Your task to perform on an android device: find which apps use the phone's location Image 0: 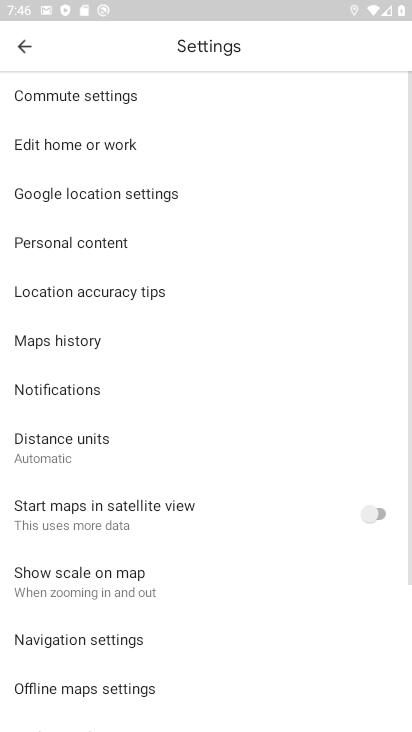
Step 0: press home button
Your task to perform on an android device: find which apps use the phone's location Image 1: 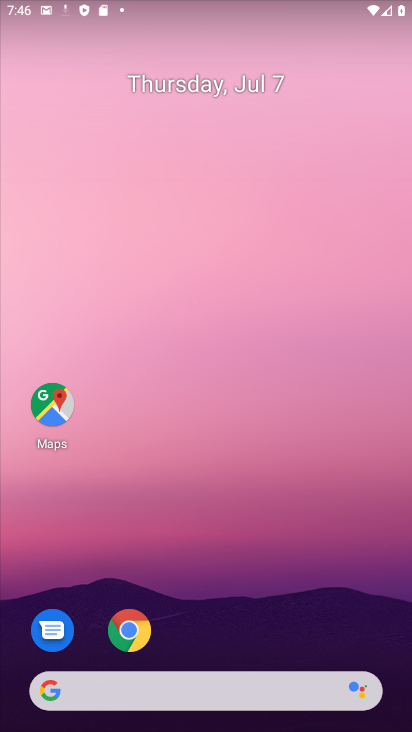
Step 1: drag from (318, 584) to (280, 5)
Your task to perform on an android device: find which apps use the phone's location Image 2: 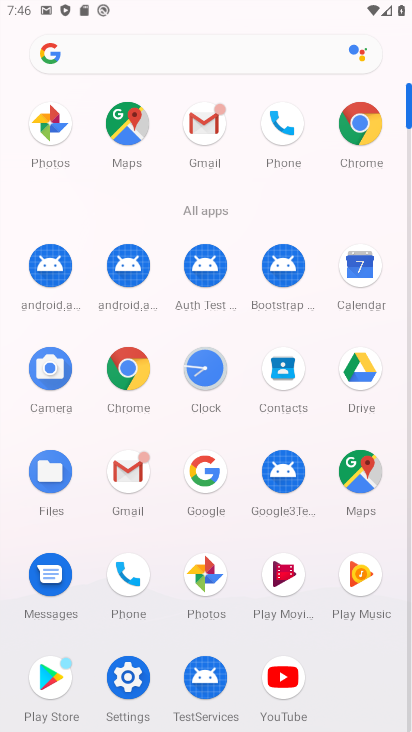
Step 2: click (122, 670)
Your task to perform on an android device: find which apps use the phone's location Image 3: 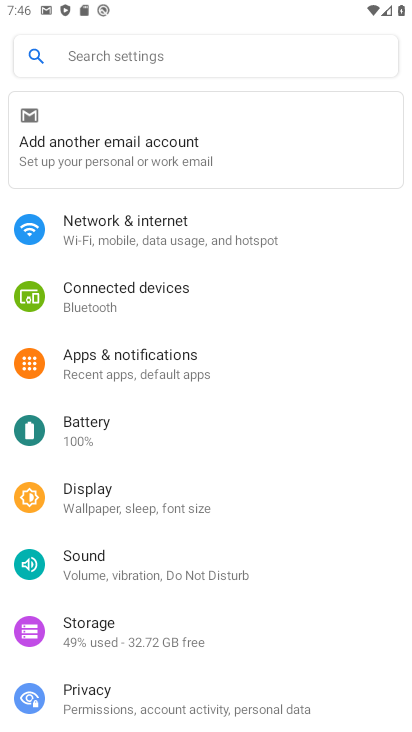
Step 3: drag from (122, 670) to (122, 501)
Your task to perform on an android device: find which apps use the phone's location Image 4: 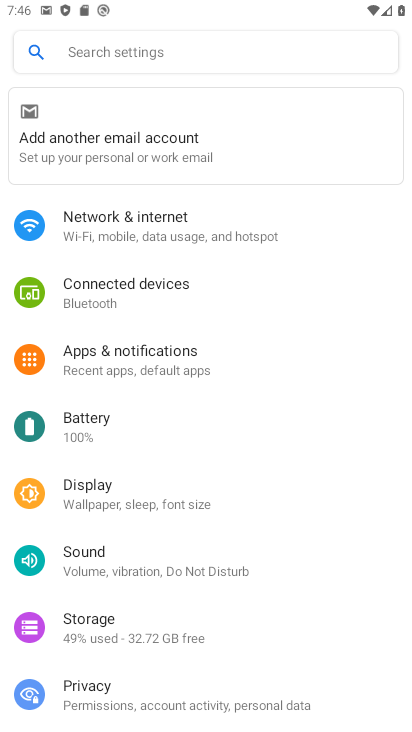
Step 4: drag from (121, 697) to (125, 359)
Your task to perform on an android device: find which apps use the phone's location Image 5: 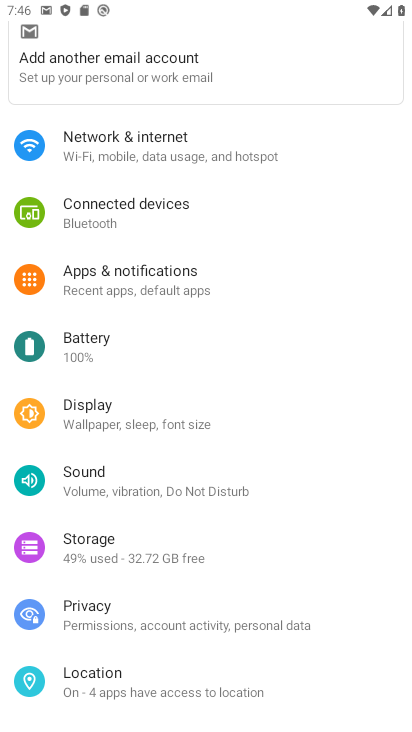
Step 5: click (113, 678)
Your task to perform on an android device: find which apps use the phone's location Image 6: 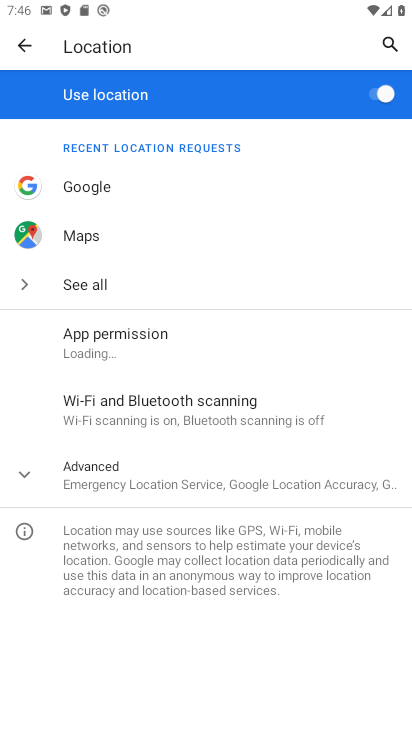
Step 6: click (153, 361)
Your task to perform on an android device: find which apps use the phone's location Image 7: 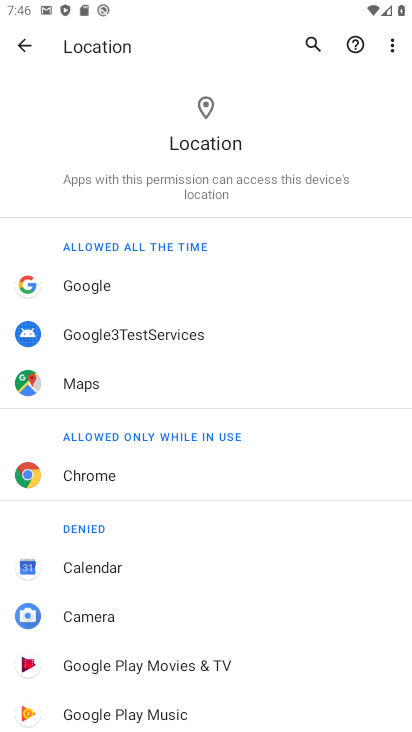
Step 7: task complete